Your task to perform on an android device: Open settings Image 0: 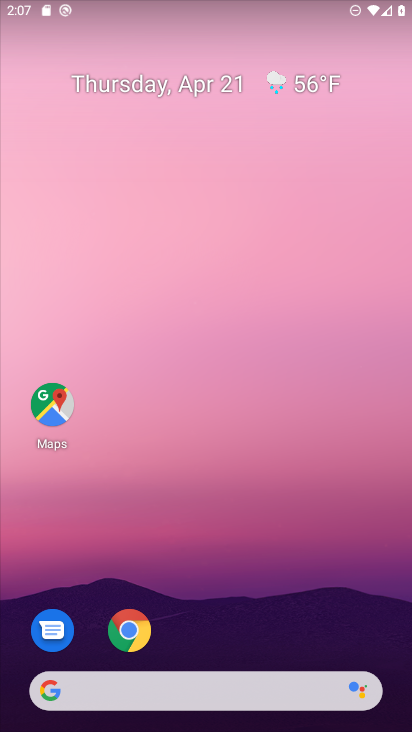
Step 0: drag from (218, 688) to (175, 292)
Your task to perform on an android device: Open settings Image 1: 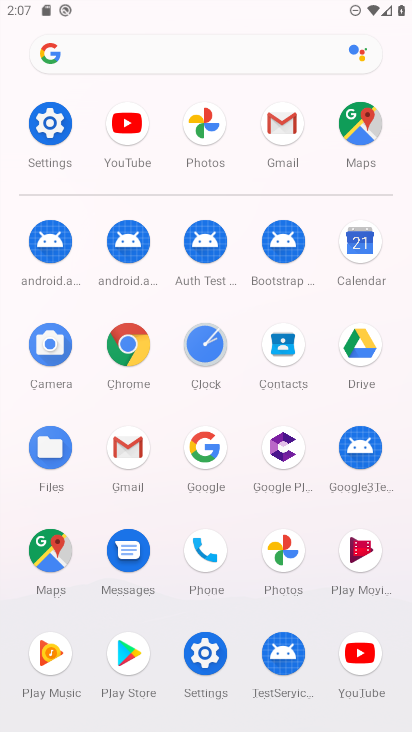
Step 1: click (57, 134)
Your task to perform on an android device: Open settings Image 2: 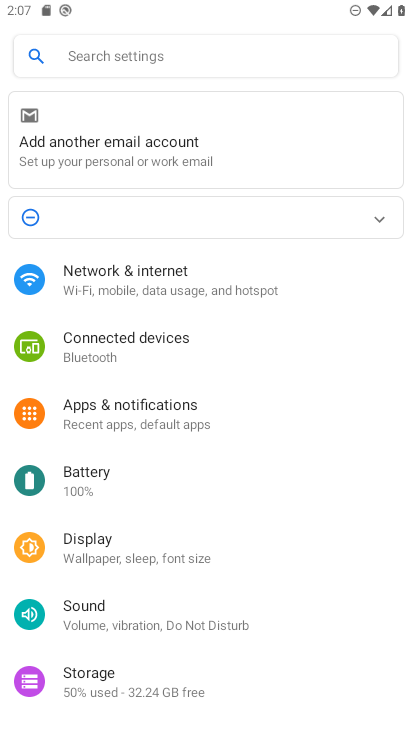
Step 2: task complete